Your task to perform on an android device: find snoozed emails in the gmail app Image 0: 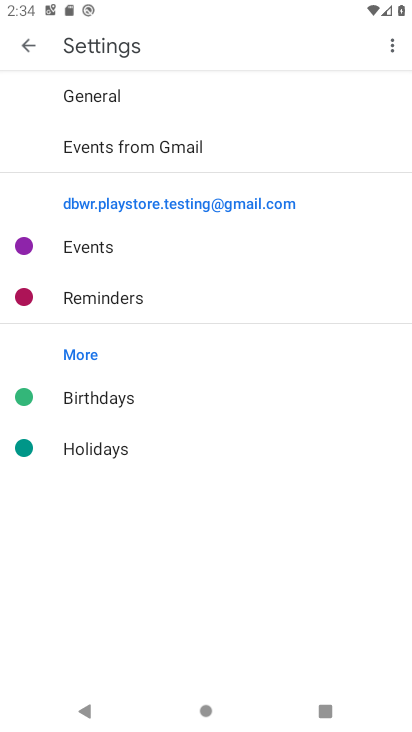
Step 0: press home button
Your task to perform on an android device: find snoozed emails in the gmail app Image 1: 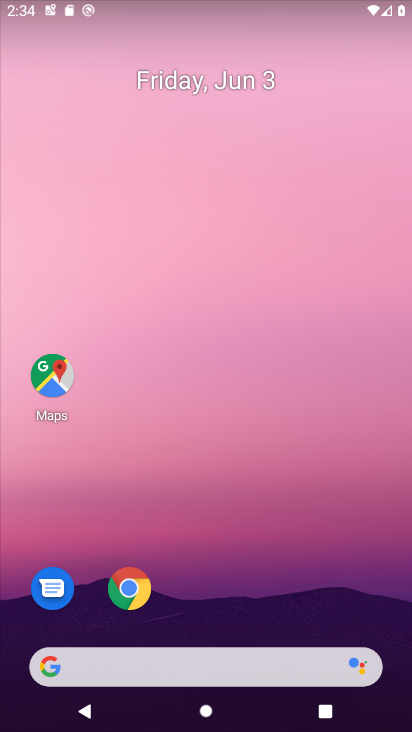
Step 1: drag from (247, 586) to (292, 335)
Your task to perform on an android device: find snoozed emails in the gmail app Image 2: 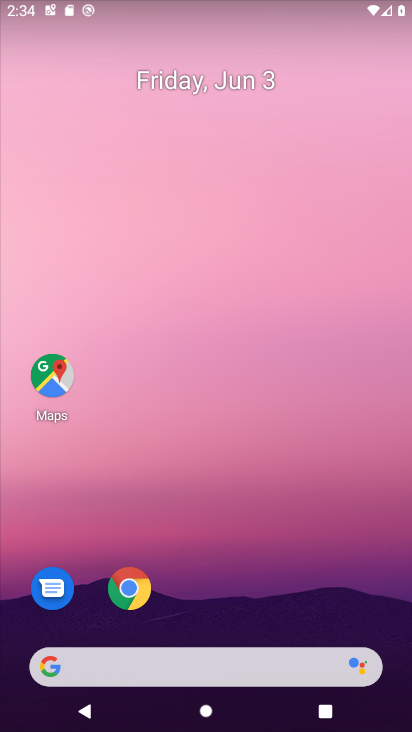
Step 2: drag from (294, 607) to (399, 2)
Your task to perform on an android device: find snoozed emails in the gmail app Image 3: 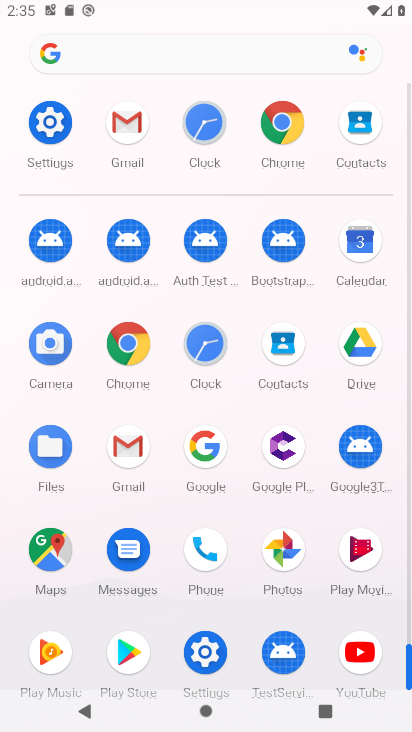
Step 3: click (134, 454)
Your task to perform on an android device: find snoozed emails in the gmail app Image 4: 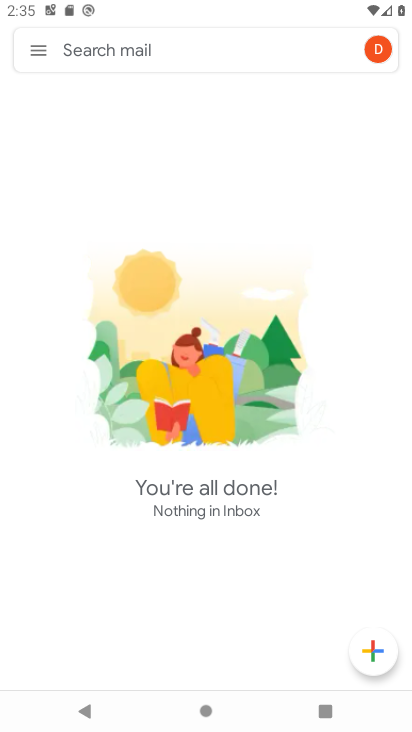
Step 4: click (36, 49)
Your task to perform on an android device: find snoozed emails in the gmail app Image 5: 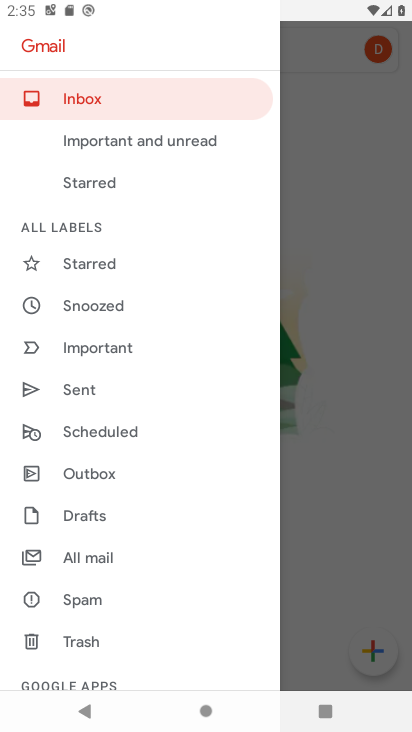
Step 5: click (126, 316)
Your task to perform on an android device: find snoozed emails in the gmail app Image 6: 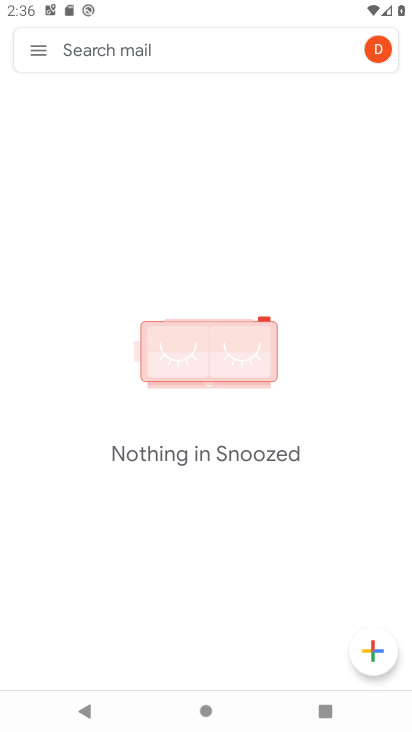
Step 6: task complete